Your task to perform on an android device: open app "Grab" (install if not already installed) Image 0: 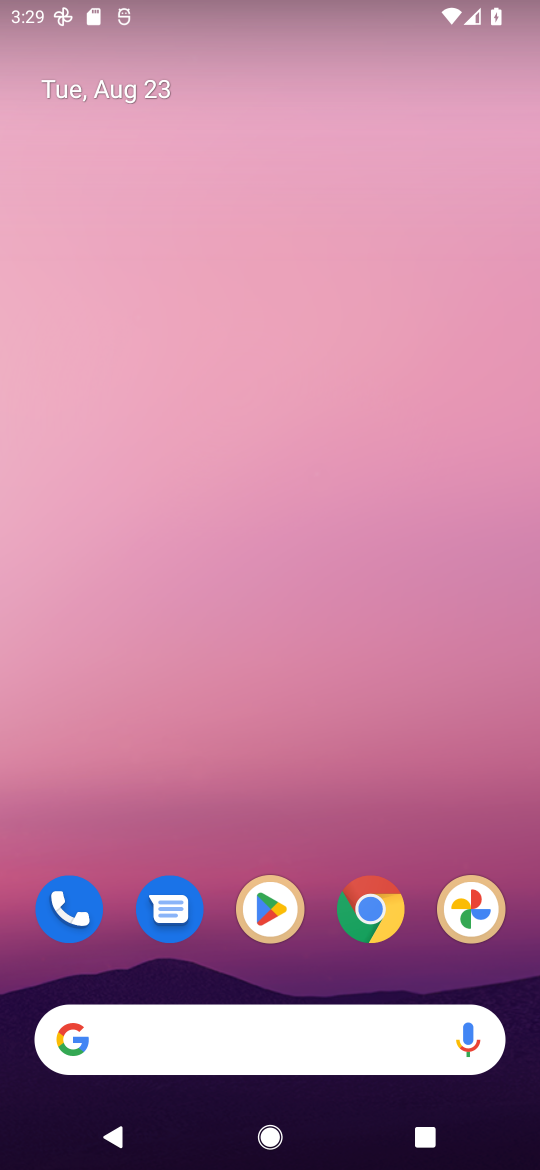
Step 0: press home button
Your task to perform on an android device: open app "Grab" (install if not already installed) Image 1: 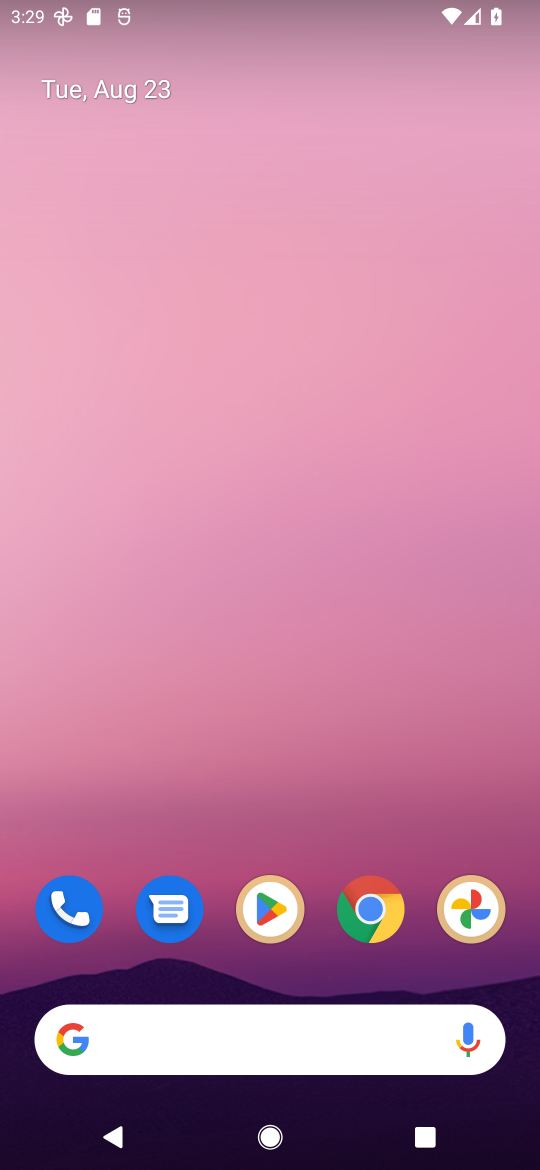
Step 1: click (261, 901)
Your task to perform on an android device: open app "Grab" (install if not already installed) Image 2: 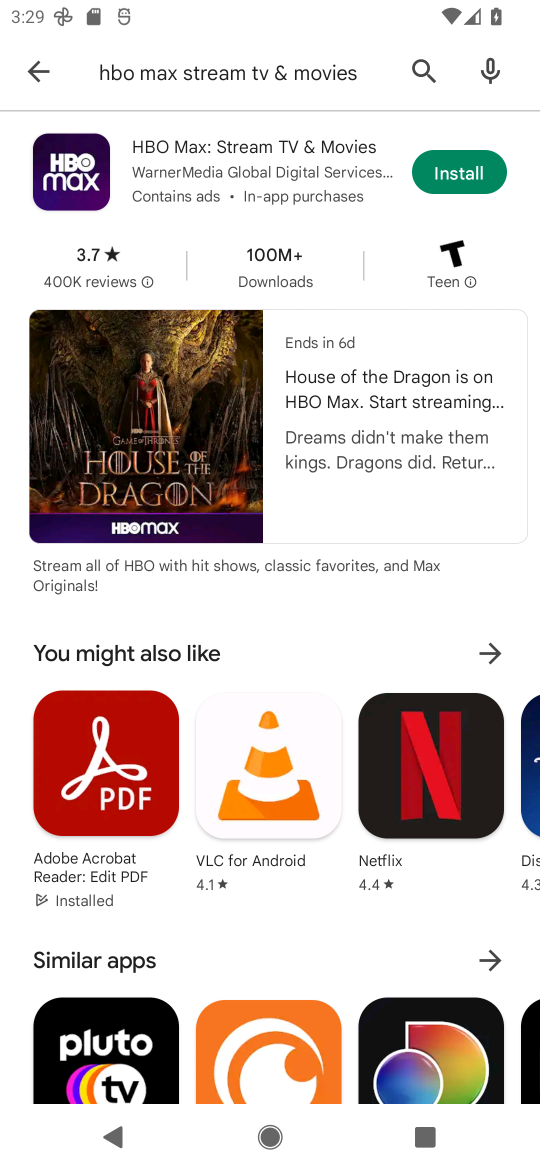
Step 2: click (422, 66)
Your task to perform on an android device: open app "Grab" (install if not already installed) Image 3: 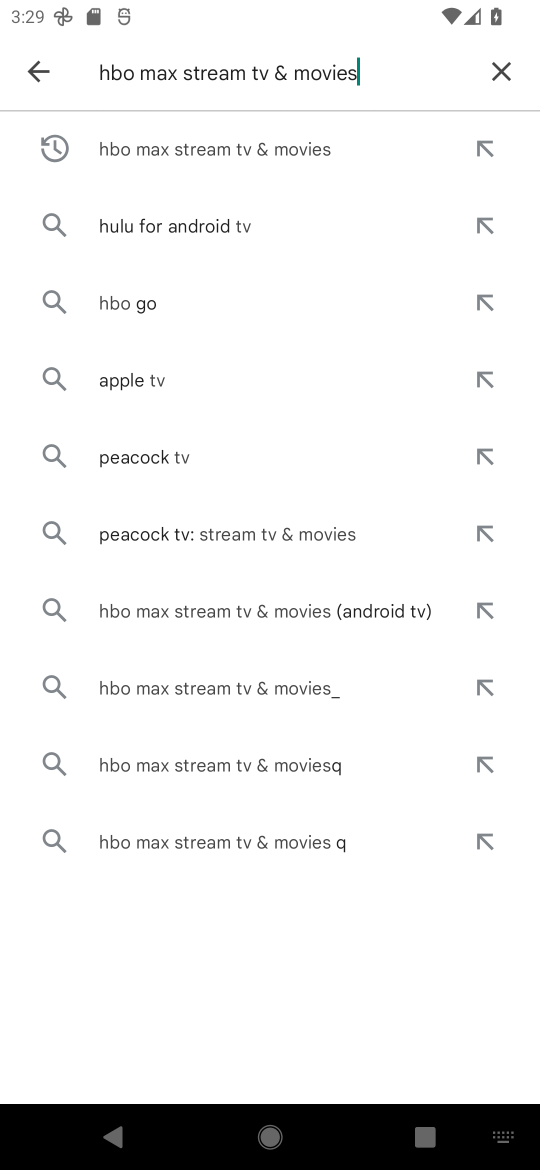
Step 3: click (504, 76)
Your task to perform on an android device: open app "Grab" (install if not already installed) Image 4: 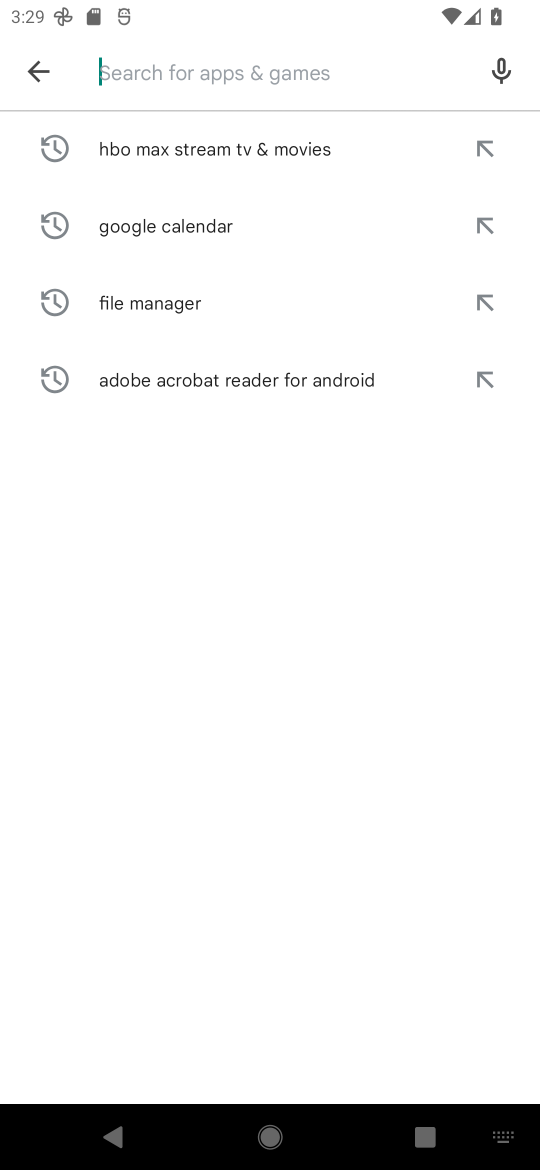
Step 4: type "Grab"
Your task to perform on an android device: open app "Grab" (install if not already installed) Image 5: 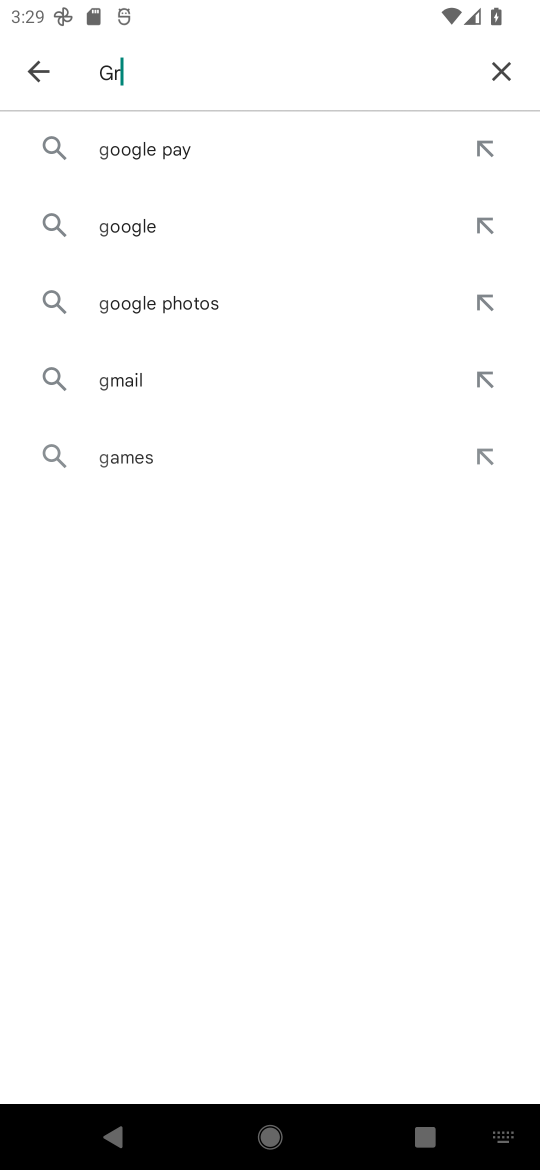
Step 5: type ""
Your task to perform on an android device: open app "Grab" (install if not already installed) Image 6: 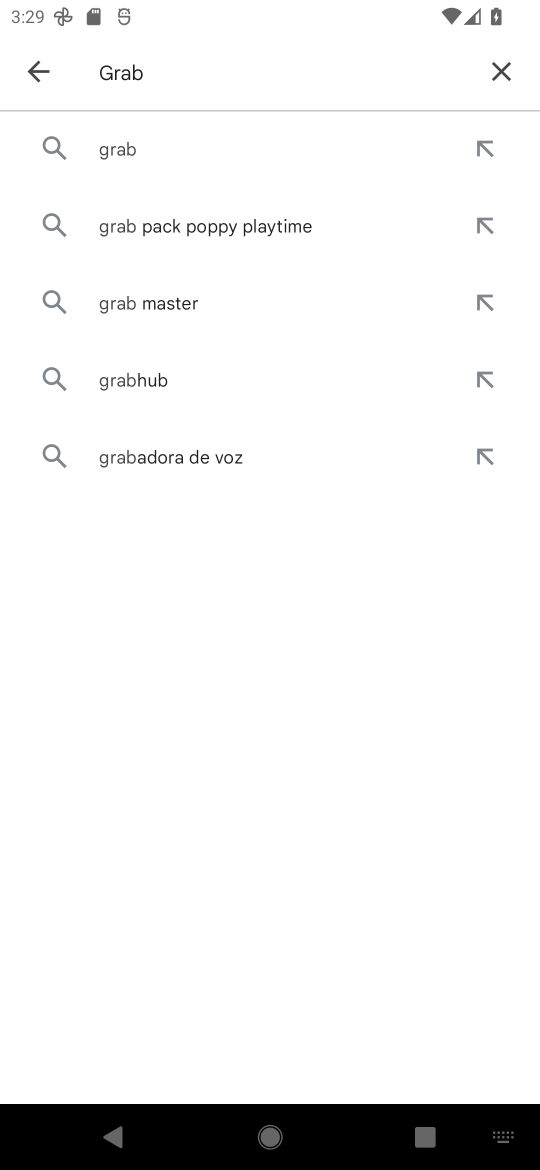
Step 6: click (146, 138)
Your task to perform on an android device: open app "Grab" (install if not already installed) Image 7: 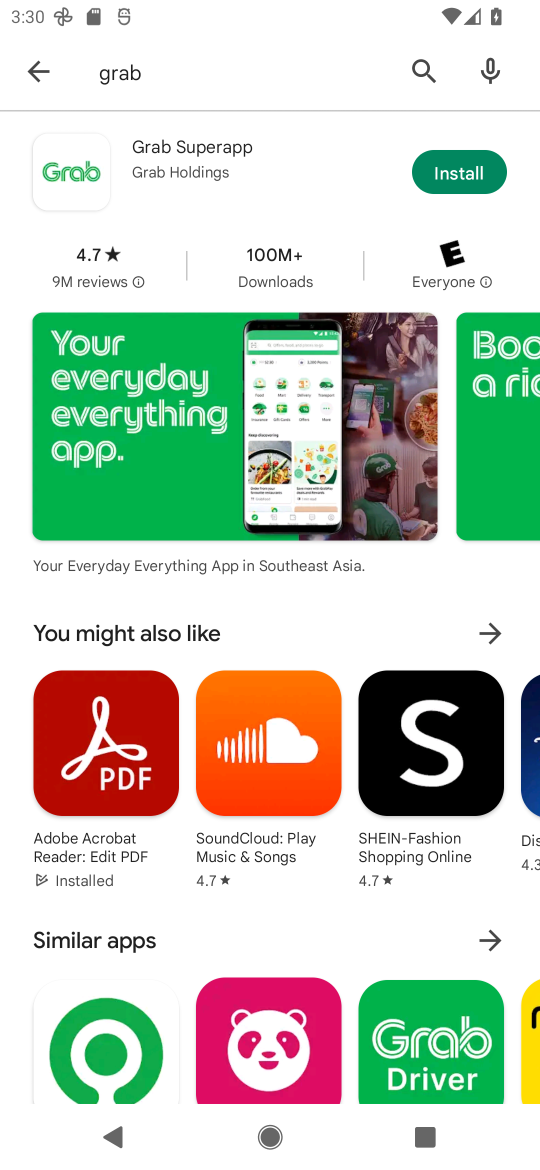
Step 7: click (36, 66)
Your task to perform on an android device: open app "Grab" (install if not already installed) Image 8: 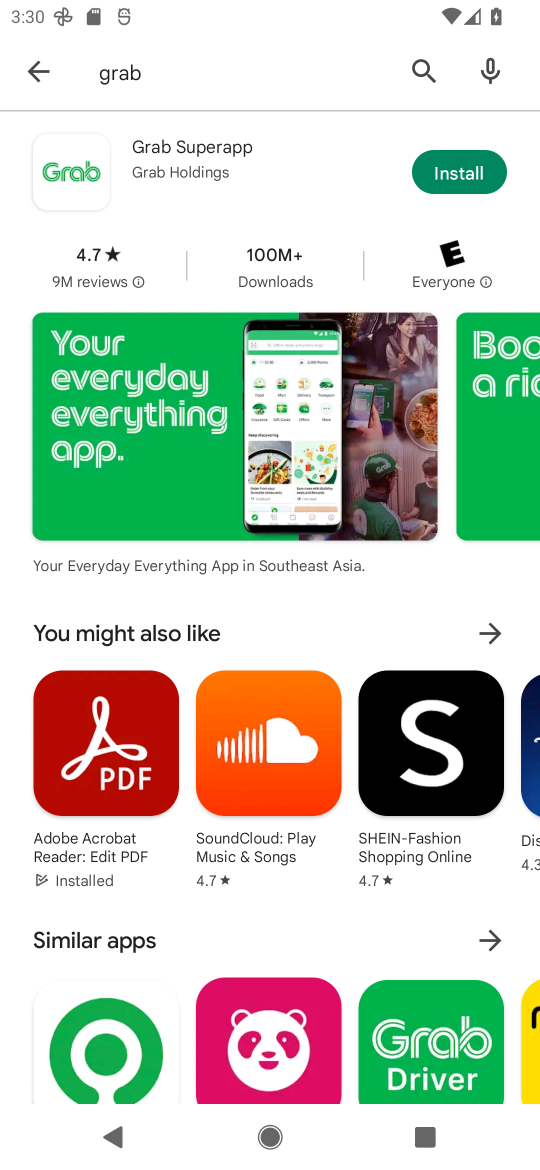
Step 8: press back button
Your task to perform on an android device: open app "Grab" (install if not already installed) Image 9: 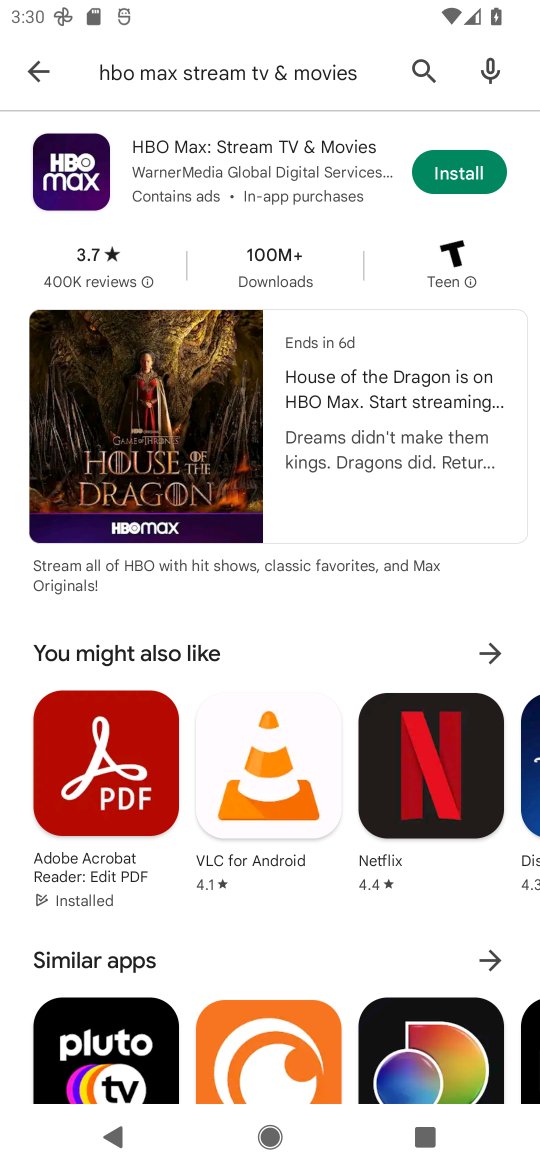
Step 9: click (414, 76)
Your task to perform on an android device: open app "Grab" (install if not already installed) Image 10: 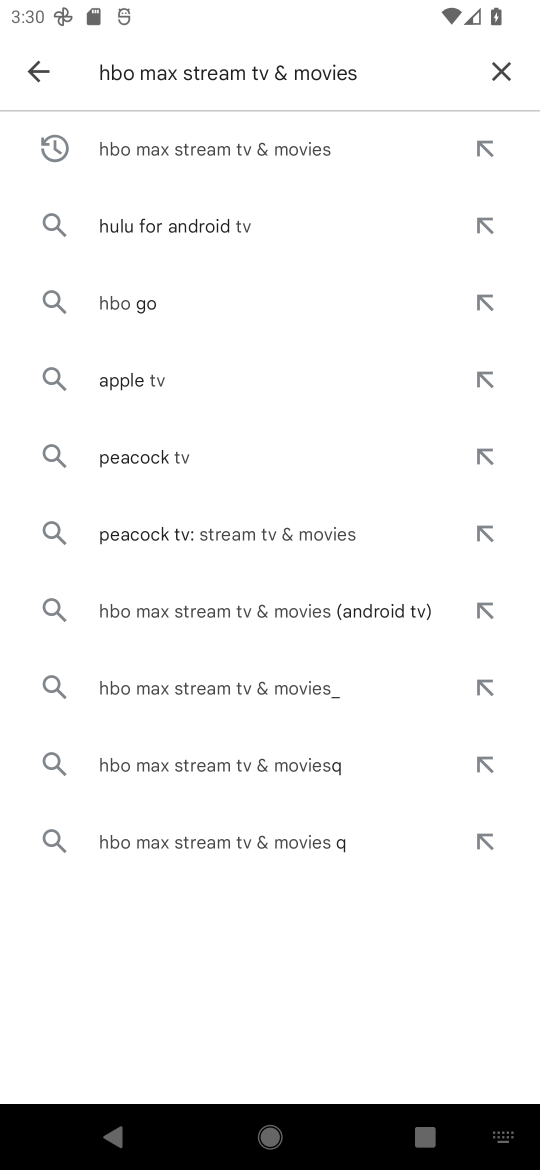
Step 10: click (486, 75)
Your task to perform on an android device: open app "Grab" (install if not already installed) Image 11: 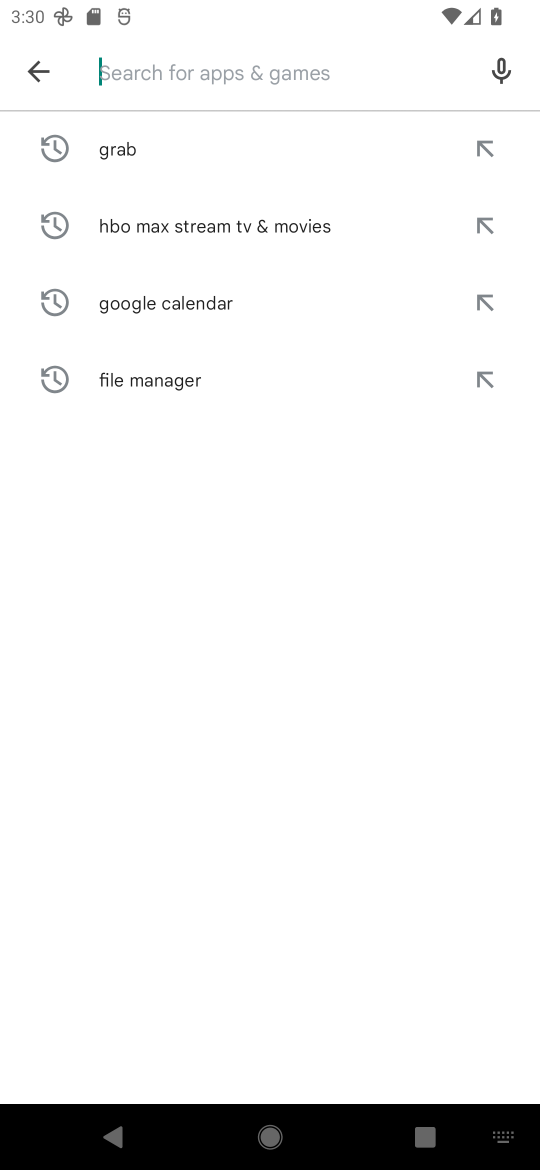
Step 11: type "Grab"
Your task to perform on an android device: open app "Grab" (install if not already installed) Image 12: 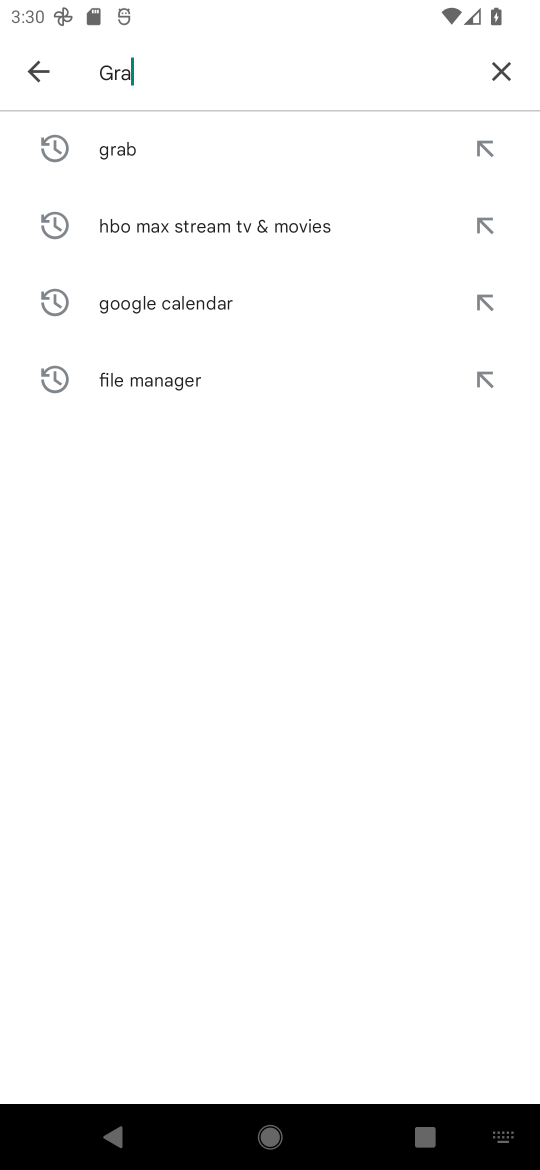
Step 12: type ""
Your task to perform on an android device: open app "Grab" (install if not already installed) Image 13: 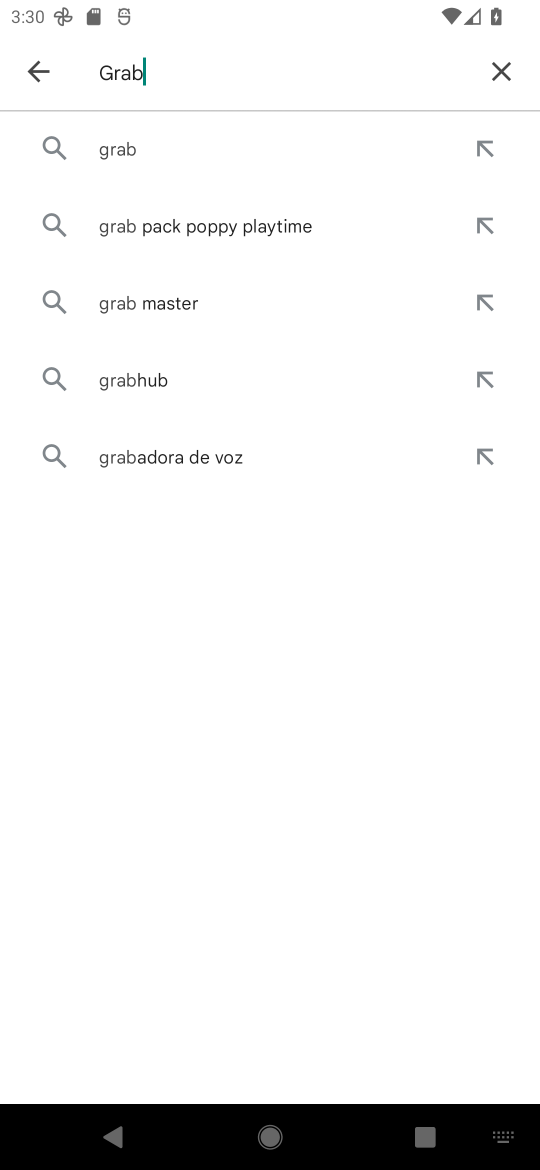
Step 13: click (165, 149)
Your task to perform on an android device: open app "Grab" (install if not already installed) Image 14: 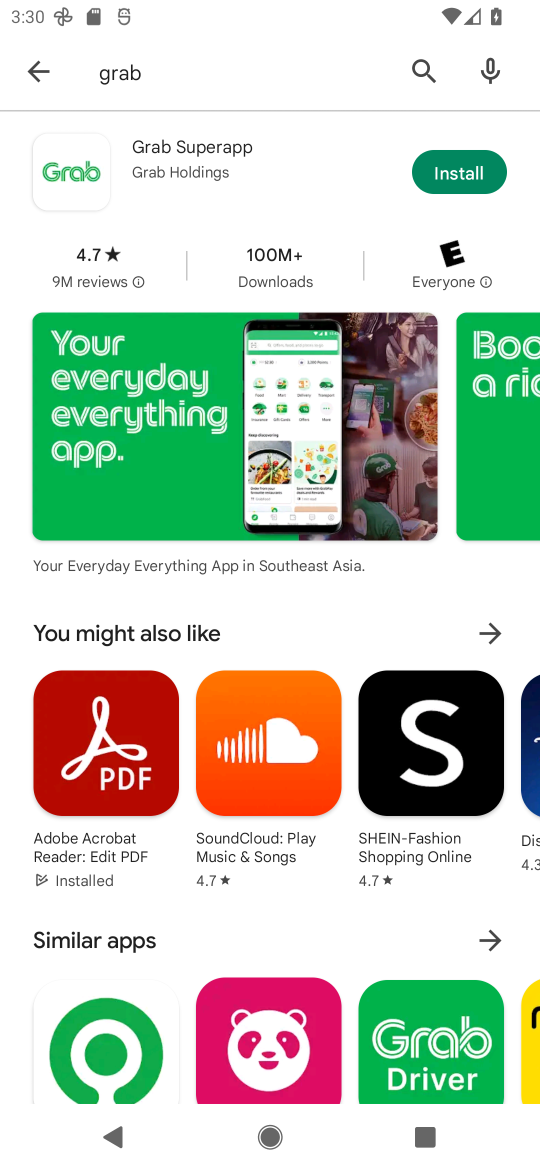
Step 14: click (454, 174)
Your task to perform on an android device: open app "Grab" (install if not already installed) Image 15: 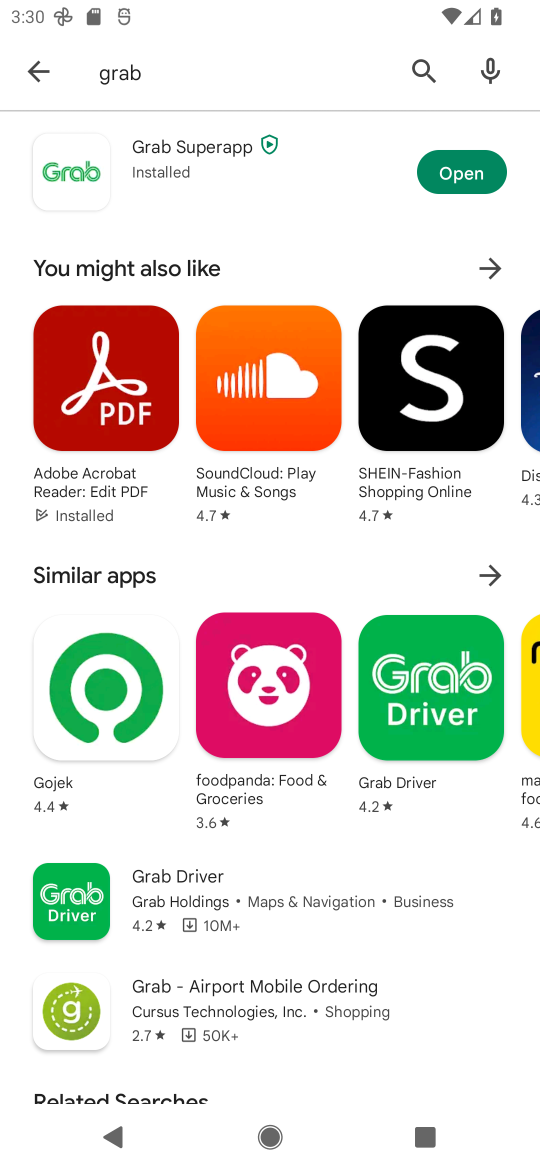
Step 15: click (449, 168)
Your task to perform on an android device: open app "Grab" (install if not already installed) Image 16: 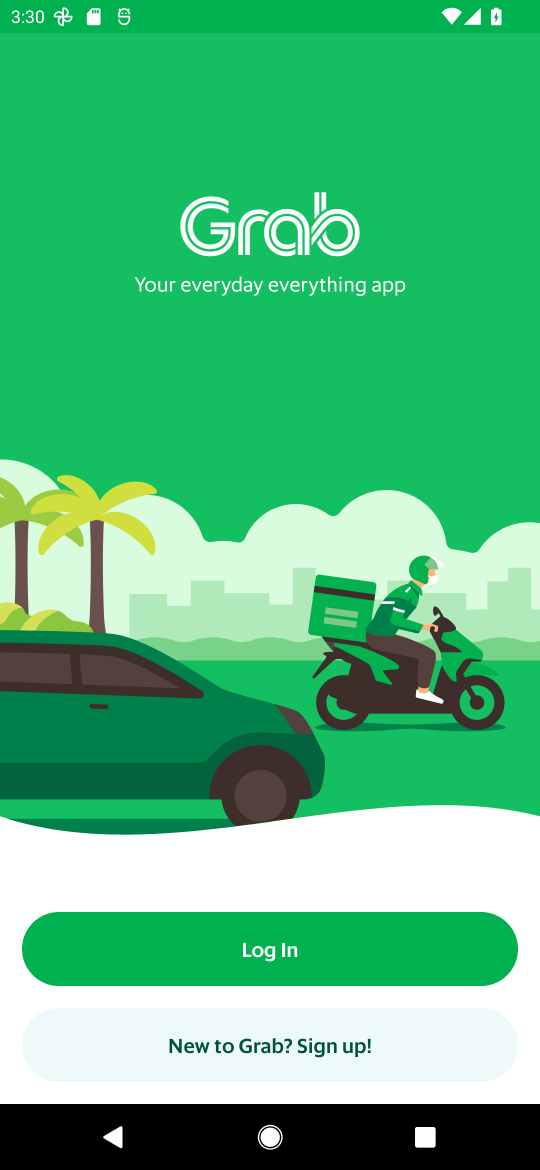
Step 16: click (271, 948)
Your task to perform on an android device: open app "Grab" (install if not already installed) Image 17: 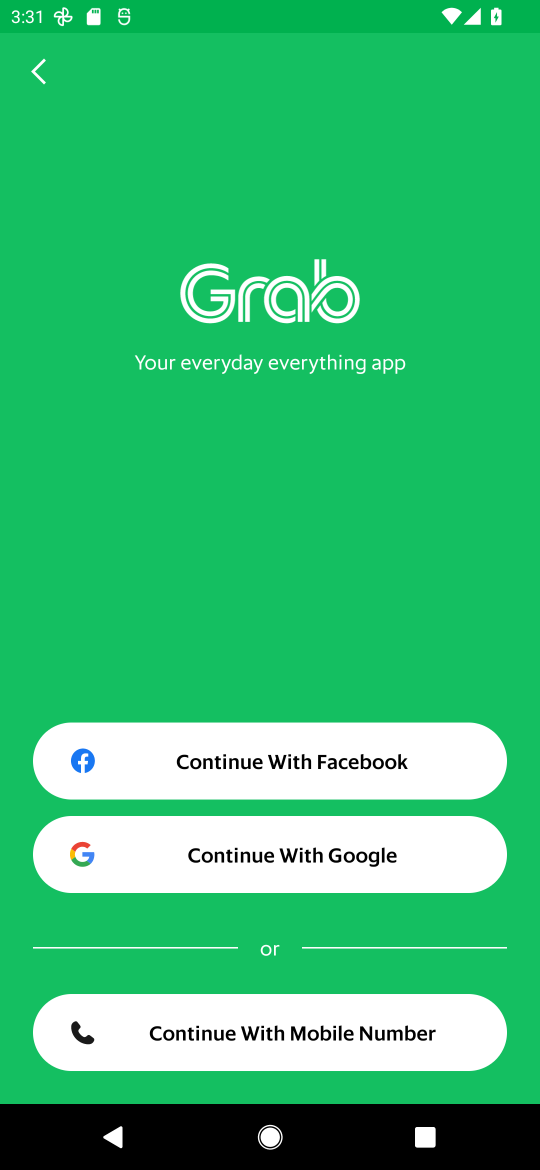
Step 17: click (261, 855)
Your task to perform on an android device: open app "Grab" (install if not already installed) Image 18: 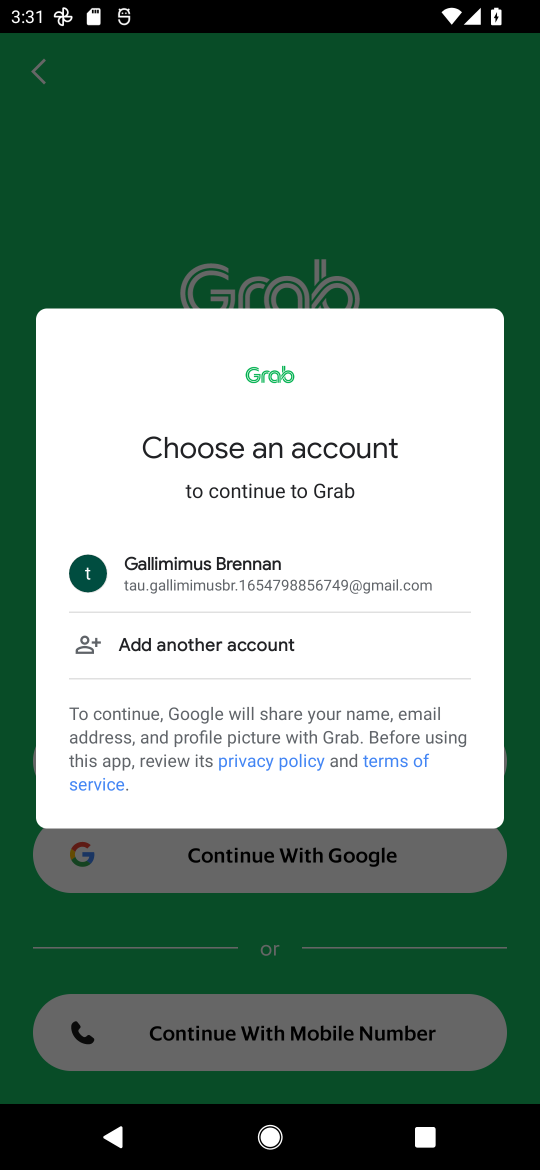
Step 18: click (198, 581)
Your task to perform on an android device: open app "Grab" (install if not already installed) Image 19: 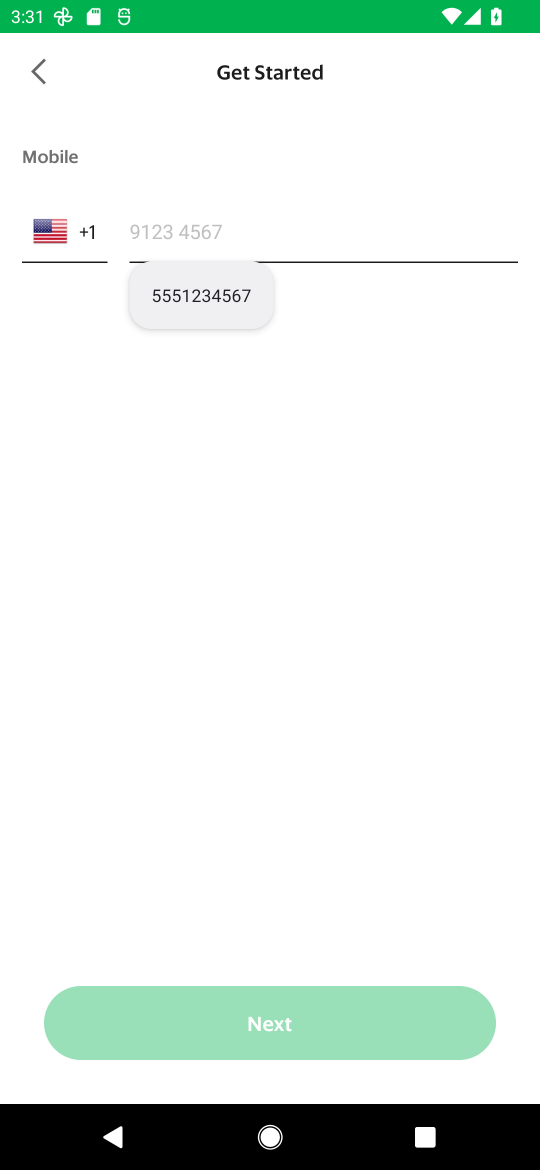
Step 19: click (35, 62)
Your task to perform on an android device: open app "Grab" (install if not already installed) Image 20: 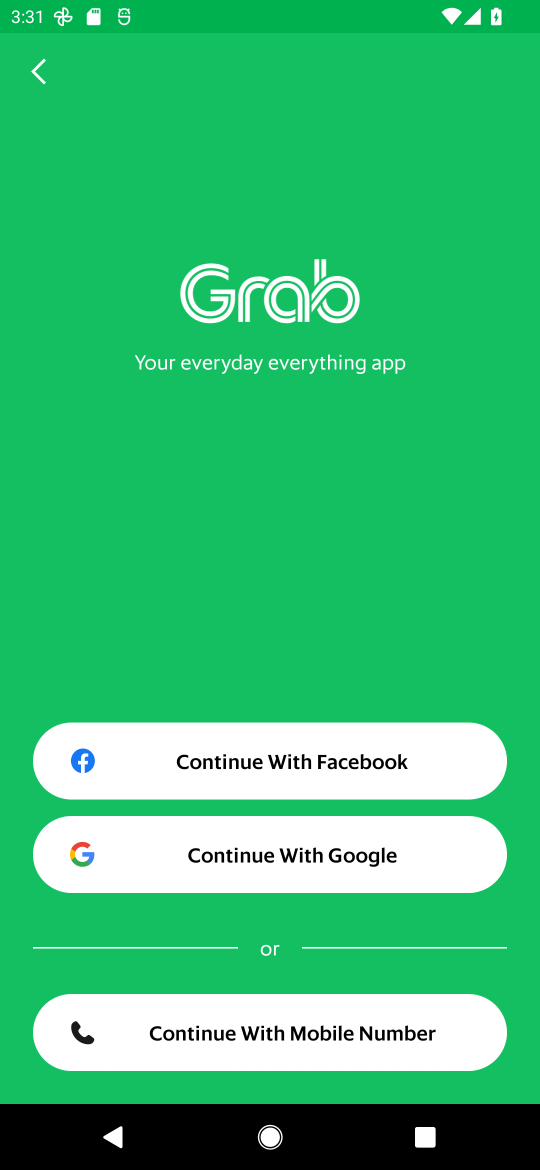
Step 20: click (302, 858)
Your task to perform on an android device: open app "Grab" (install if not already installed) Image 21: 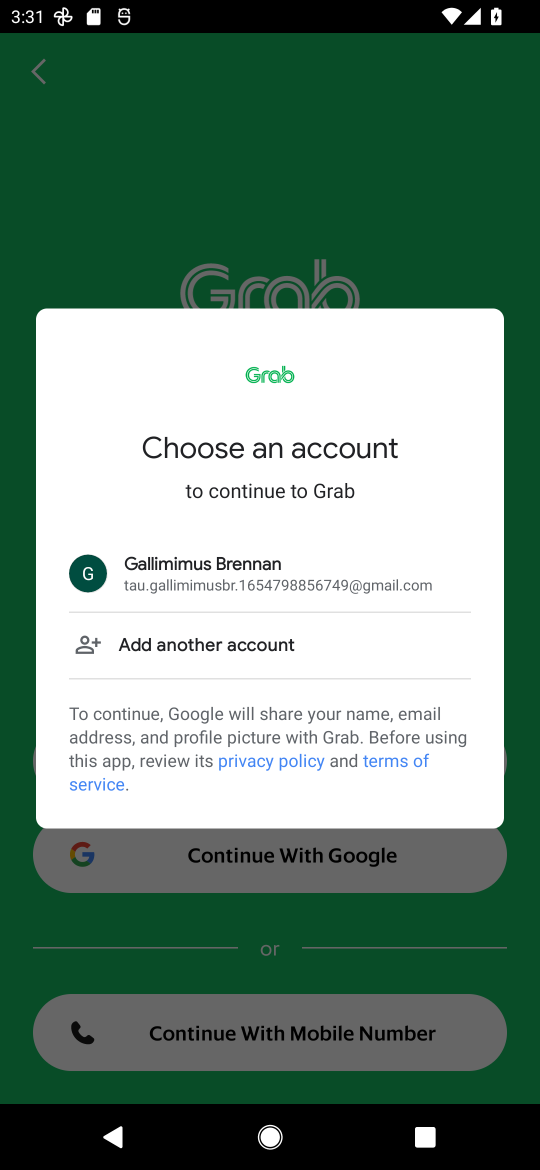
Step 21: click (193, 554)
Your task to perform on an android device: open app "Grab" (install if not already installed) Image 22: 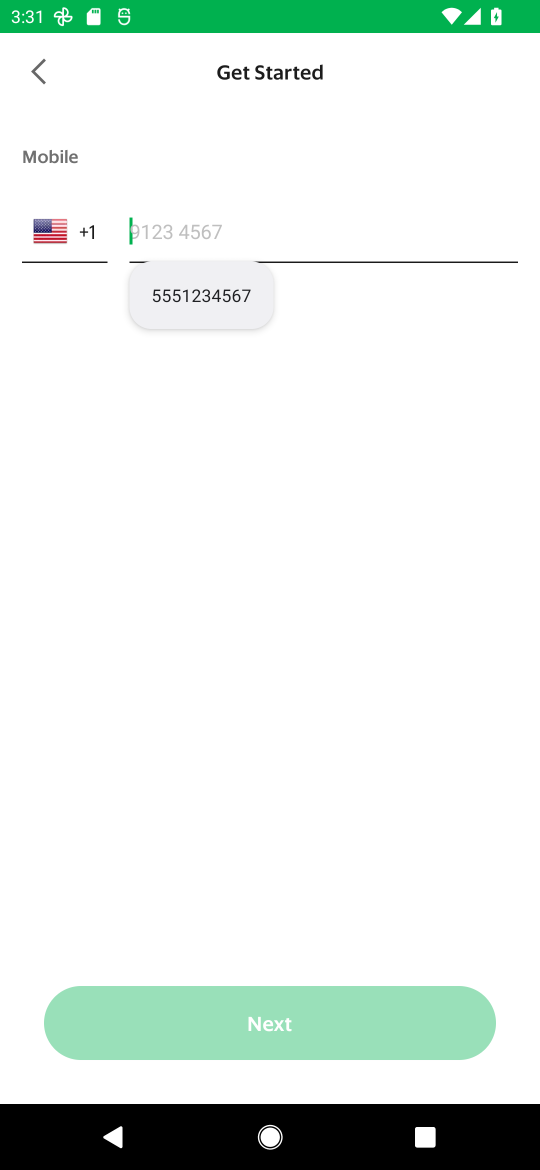
Step 22: task complete